Your task to perform on an android device: choose inbox layout in the gmail app Image 0: 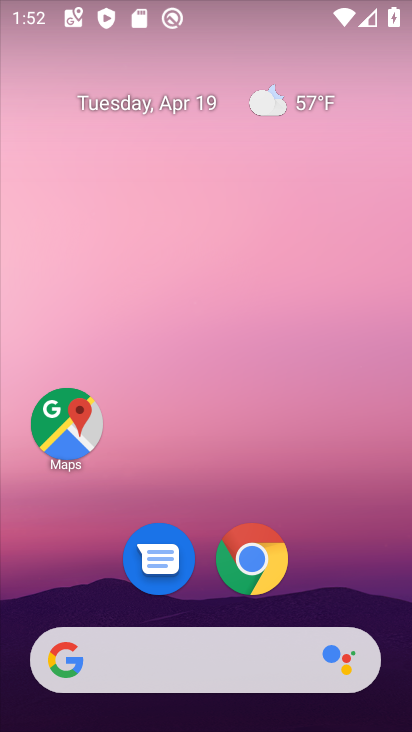
Step 0: drag from (210, 607) to (219, 102)
Your task to perform on an android device: choose inbox layout in the gmail app Image 1: 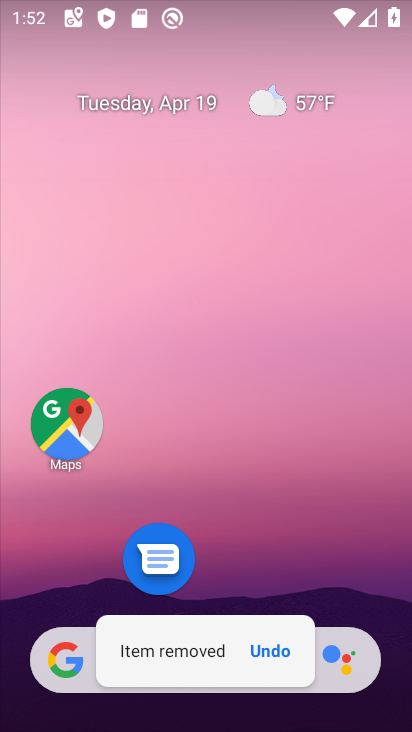
Step 1: click (268, 654)
Your task to perform on an android device: choose inbox layout in the gmail app Image 2: 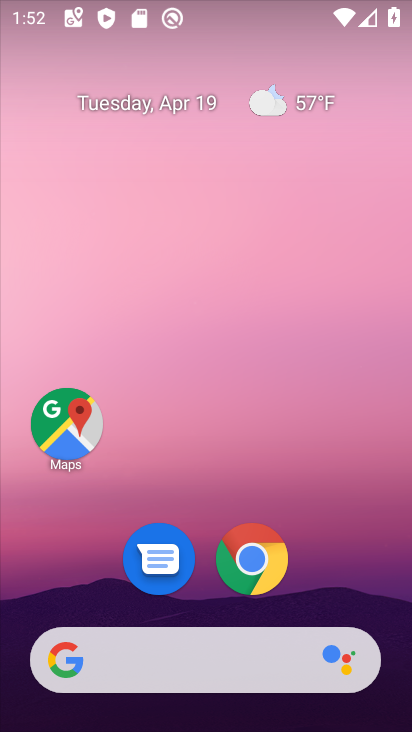
Step 2: drag from (316, 579) to (302, 96)
Your task to perform on an android device: choose inbox layout in the gmail app Image 3: 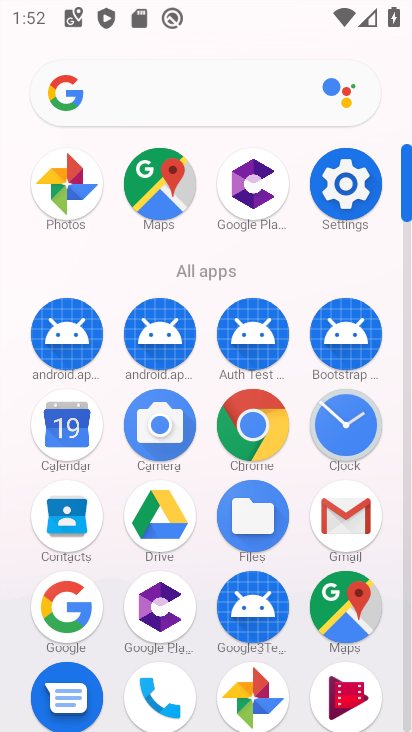
Step 3: click (342, 509)
Your task to perform on an android device: choose inbox layout in the gmail app Image 4: 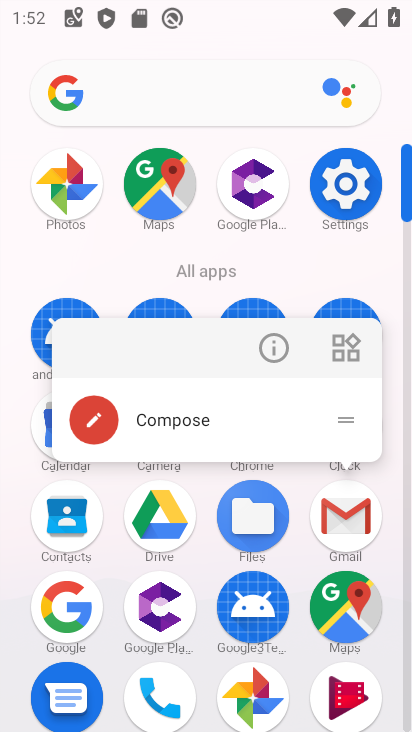
Step 4: click (344, 510)
Your task to perform on an android device: choose inbox layout in the gmail app Image 5: 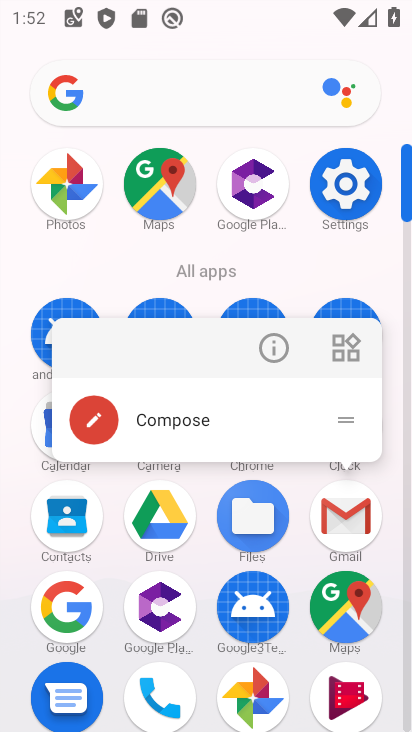
Step 5: click (348, 510)
Your task to perform on an android device: choose inbox layout in the gmail app Image 6: 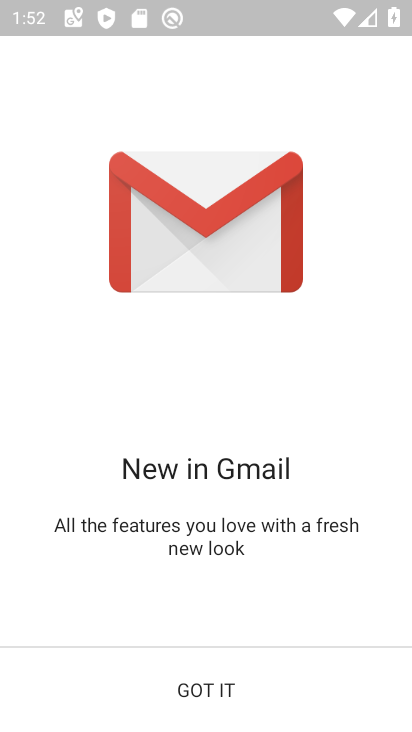
Step 6: click (214, 695)
Your task to perform on an android device: choose inbox layout in the gmail app Image 7: 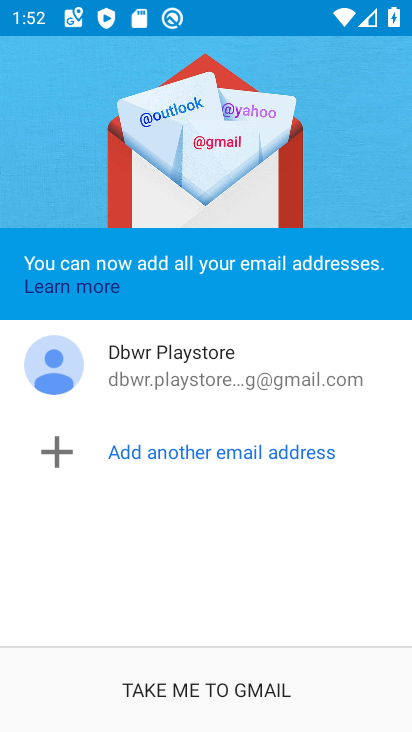
Step 7: click (201, 703)
Your task to perform on an android device: choose inbox layout in the gmail app Image 8: 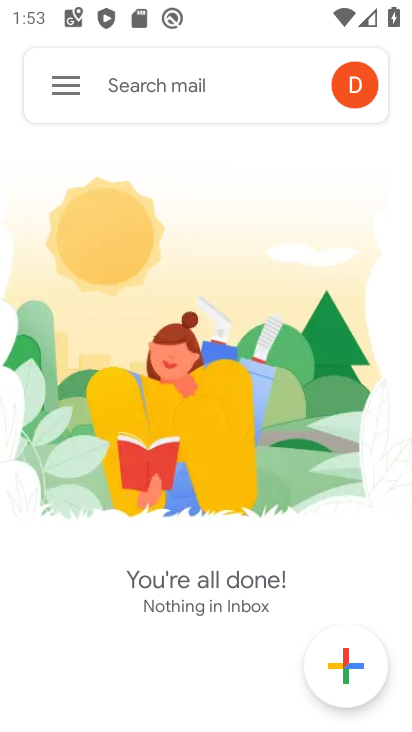
Step 8: click (62, 78)
Your task to perform on an android device: choose inbox layout in the gmail app Image 9: 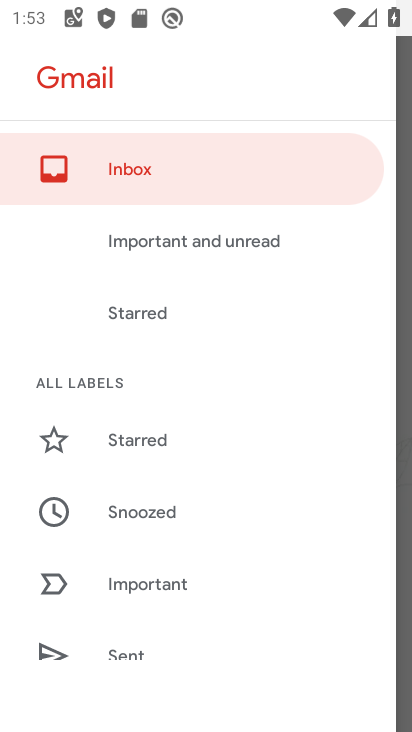
Step 9: drag from (198, 614) to (201, 185)
Your task to perform on an android device: choose inbox layout in the gmail app Image 10: 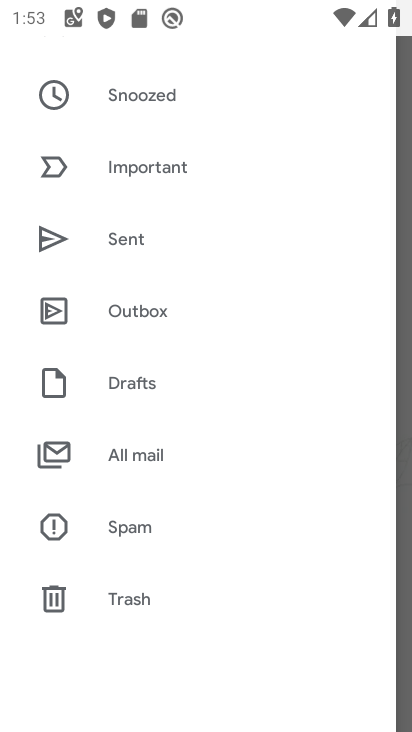
Step 10: drag from (112, 582) to (134, 216)
Your task to perform on an android device: choose inbox layout in the gmail app Image 11: 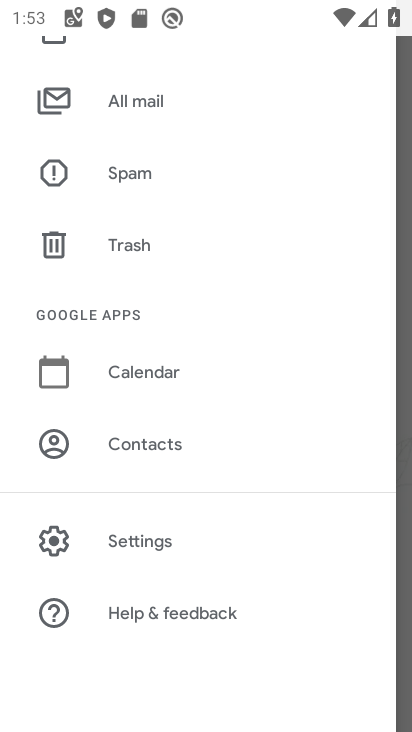
Step 11: click (134, 537)
Your task to perform on an android device: choose inbox layout in the gmail app Image 12: 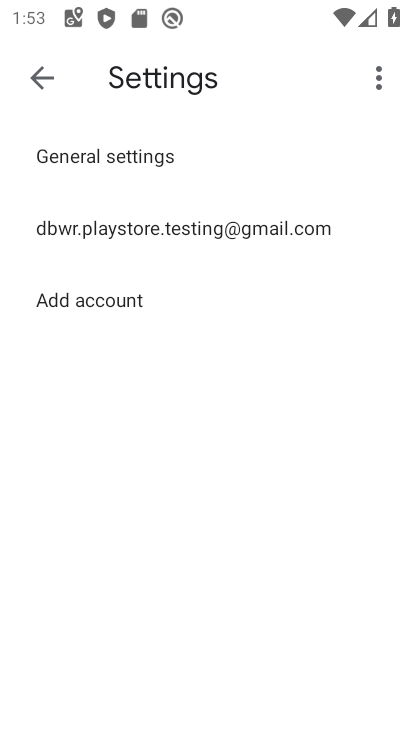
Step 12: click (152, 224)
Your task to perform on an android device: choose inbox layout in the gmail app Image 13: 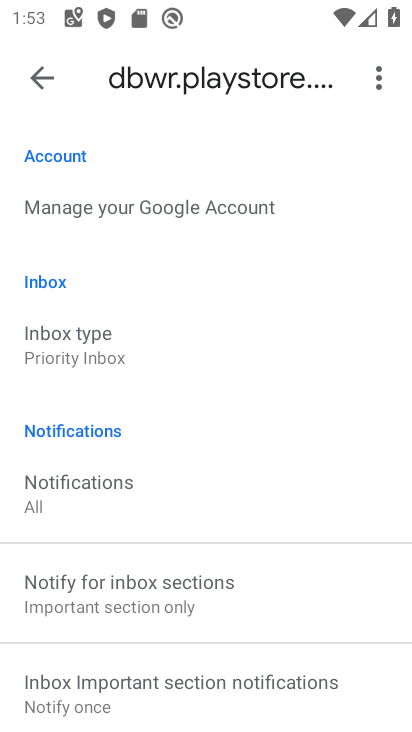
Step 13: click (111, 335)
Your task to perform on an android device: choose inbox layout in the gmail app Image 14: 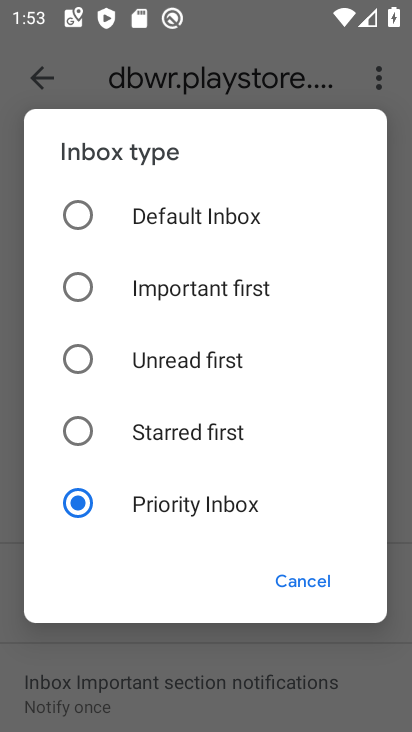
Step 14: click (76, 213)
Your task to perform on an android device: choose inbox layout in the gmail app Image 15: 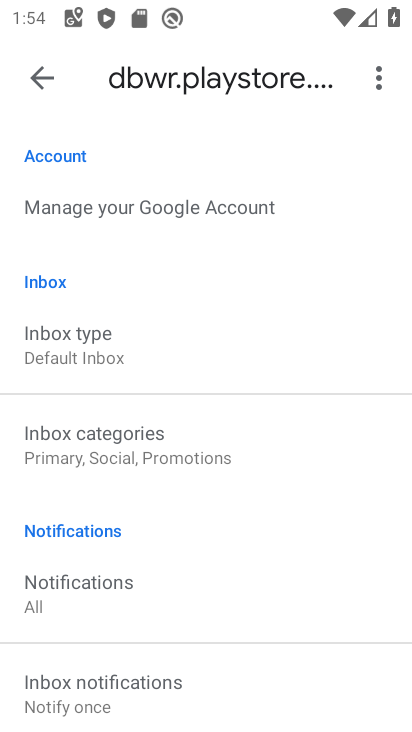
Step 15: task complete